Your task to perform on an android device: open chrome privacy settings Image 0: 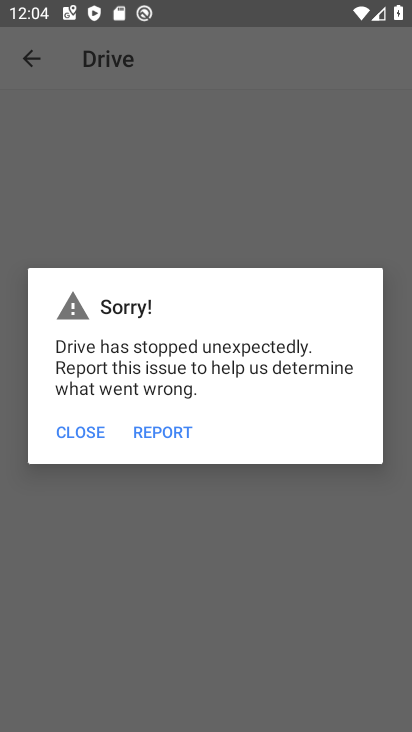
Step 0: press home button
Your task to perform on an android device: open chrome privacy settings Image 1: 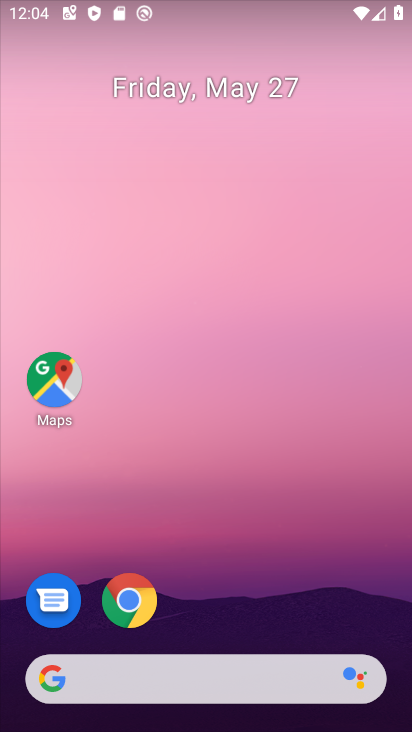
Step 1: drag from (243, 564) to (253, 86)
Your task to perform on an android device: open chrome privacy settings Image 2: 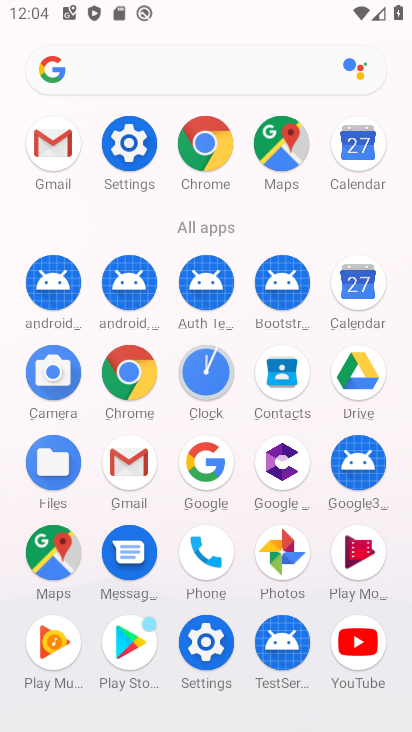
Step 2: click (123, 369)
Your task to perform on an android device: open chrome privacy settings Image 3: 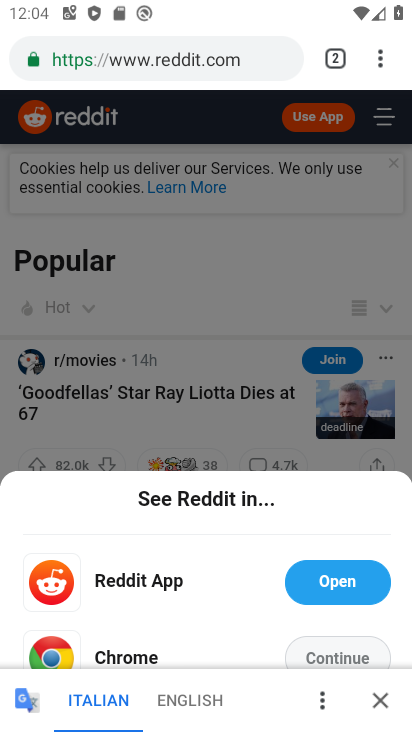
Step 3: drag from (378, 53) to (219, 626)
Your task to perform on an android device: open chrome privacy settings Image 4: 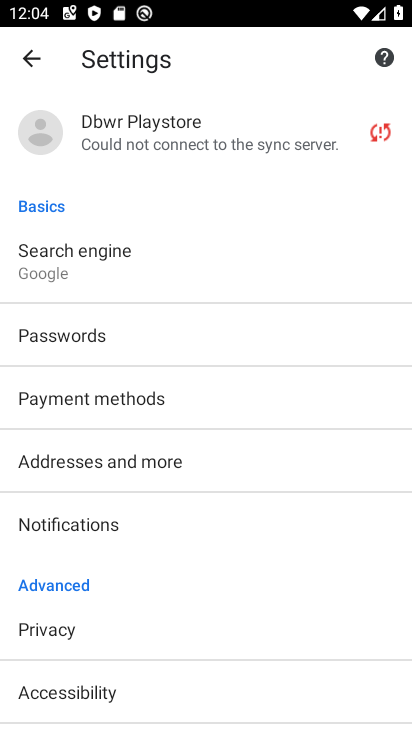
Step 4: click (86, 621)
Your task to perform on an android device: open chrome privacy settings Image 5: 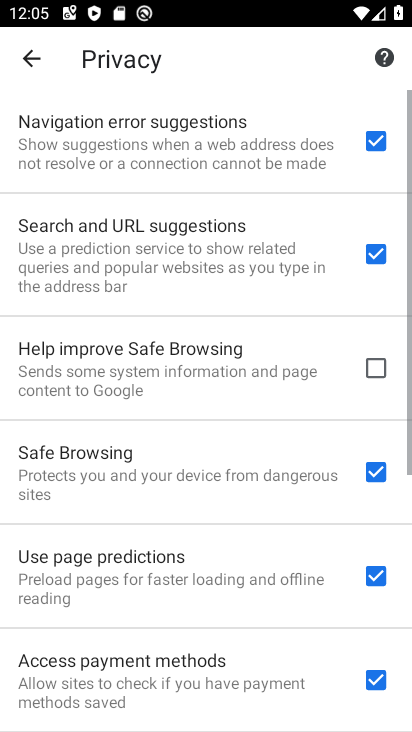
Step 5: task complete